Your task to perform on an android device: change the clock display to analog Image 0: 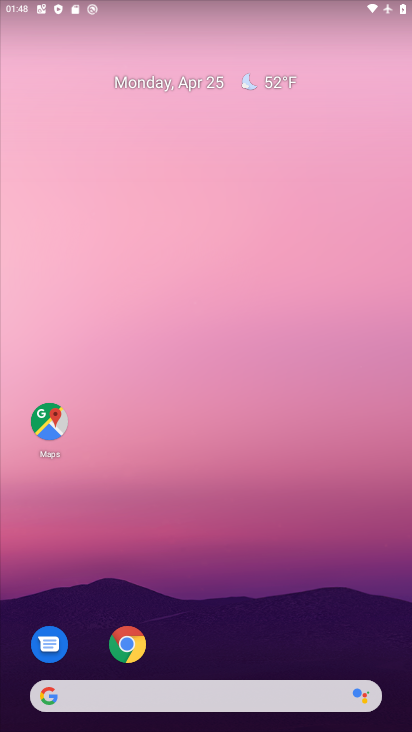
Step 0: click (123, 654)
Your task to perform on an android device: change the clock display to analog Image 1: 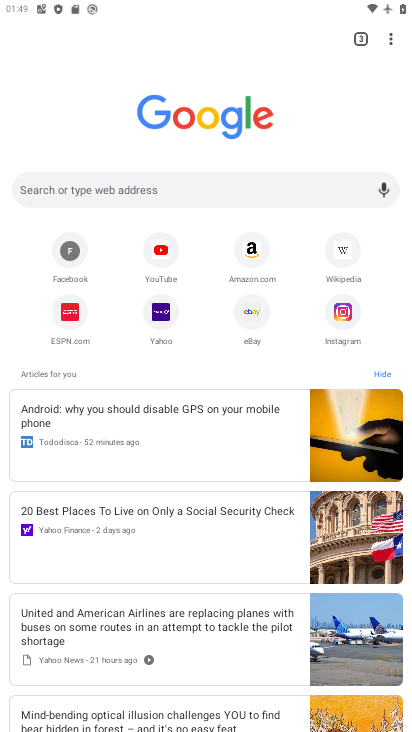
Step 1: click (390, 50)
Your task to perform on an android device: change the clock display to analog Image 2: 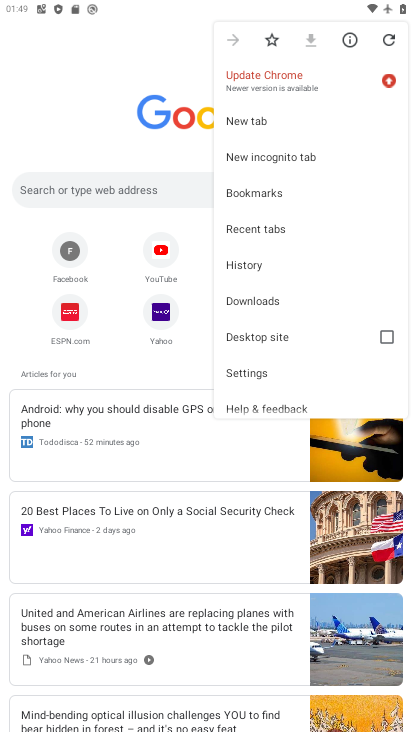
Step 2: press home button
Your task to perform on an android device: change the clock display to analog Image 3: 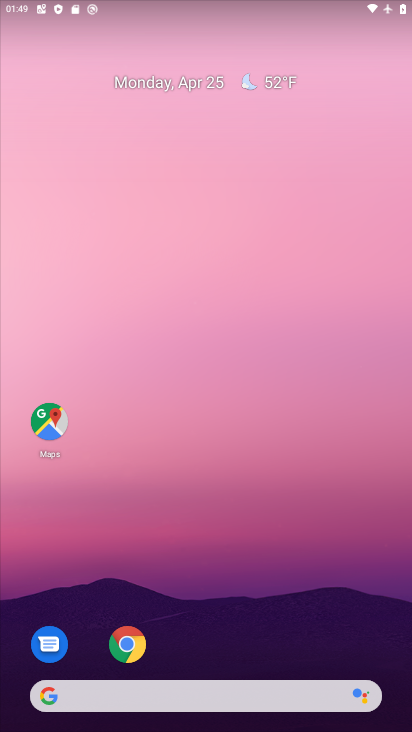
Step 3: drag from (208, 605) to (217, 151)
Your task to perform on an android device: change the clock display to analog Image 4: 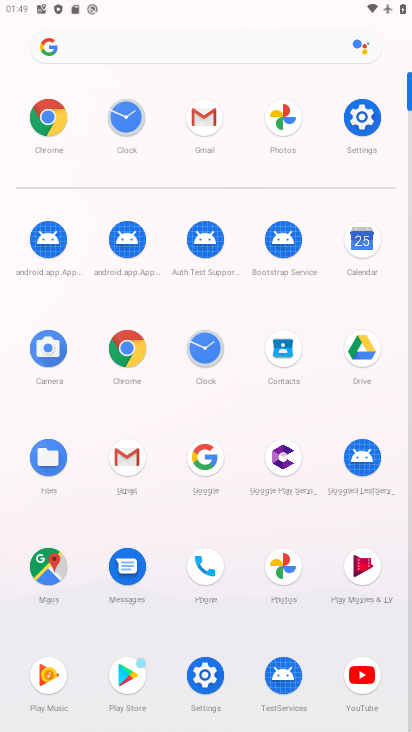
Step 4: click (355, 143)
Your task to perform on an android device: change the clock display to analog Image 5: 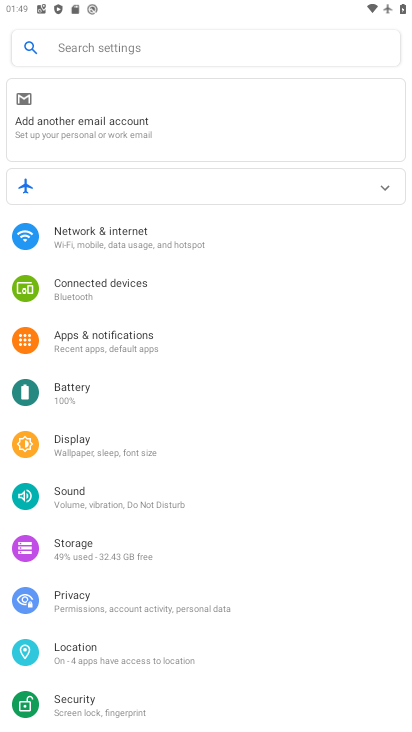
Step 5: press home button
Your task to perform on an android device: change the clock display to analog Image 6: 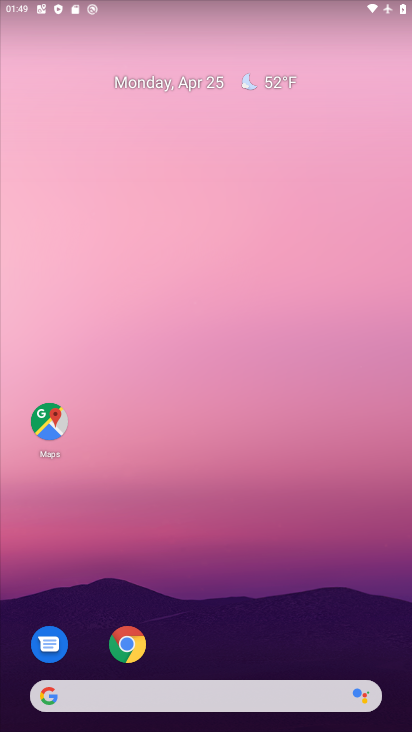
Step 6: drag from (228, 609) to (233, 28)
Your task to perform on an android device: change the clock display to analog Image 7: 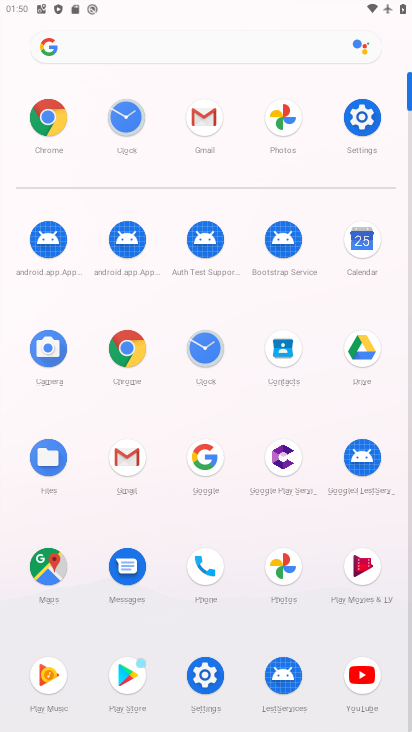
Step 7: click (192, 367)
Your task to perform on an android device: change the clock display to analog Image 8: 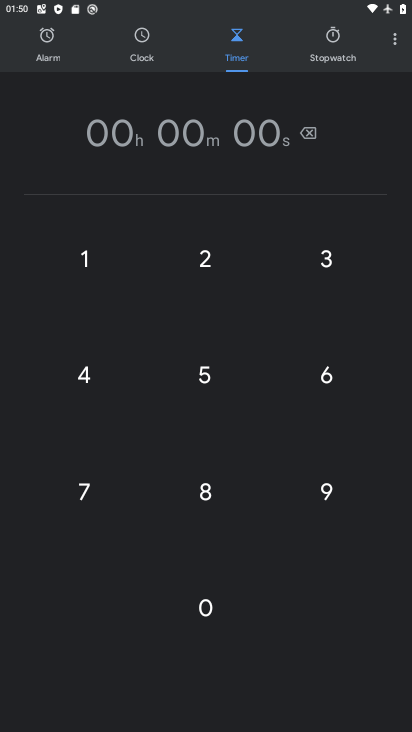
Step 8: click (394, 31)
Your task to perform on an android device: change the clock display to analog Image 9: 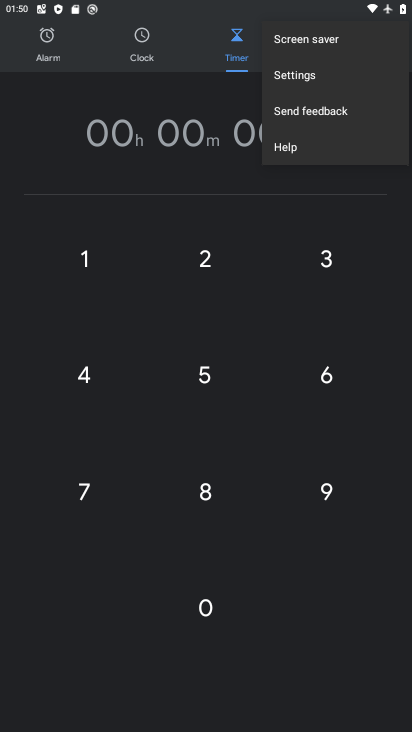
Step 9: click (310, 86)
Your task to perform on an android device: change the clock display to analog Image 10: 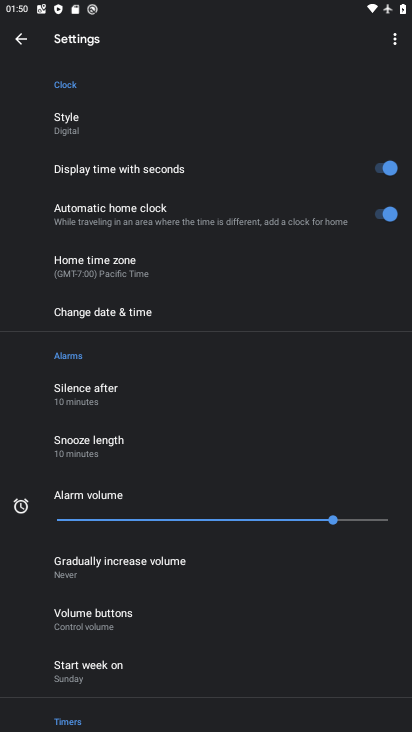
Step 10: drag from (118, 603) to (118, 485)
Your task to perform on an android device: change the clock display to analog Image 11: 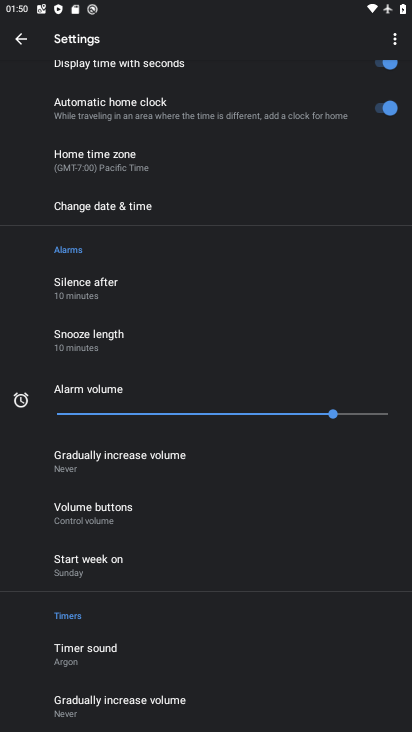
Step 11: drag from (192, 167) to (299, 699)
Your task to perform on an android device: change the clock display to analog Image 12: 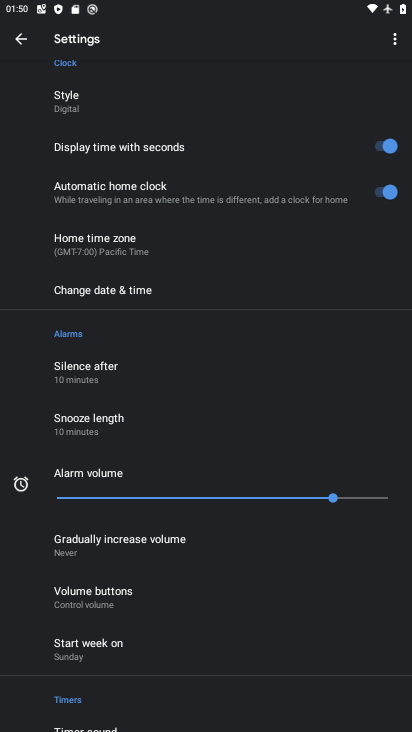
Step 12: click (65, 94)
Your task to perform on an android device: change the clock display to analog Image 13: 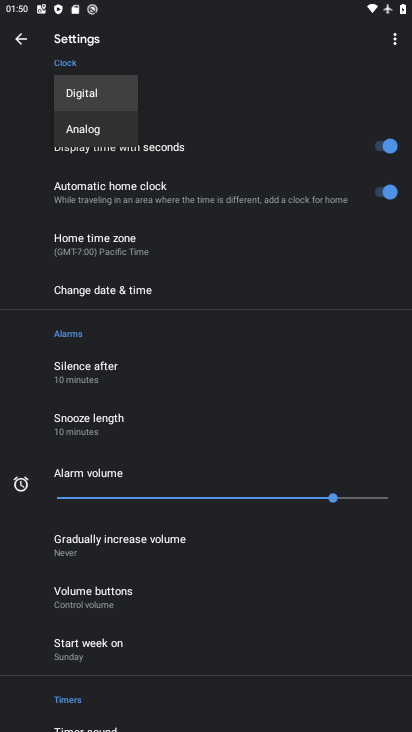
Step 13: click (121, 131)
Your task to perform on an android device: change the clock display to analog Image 14: 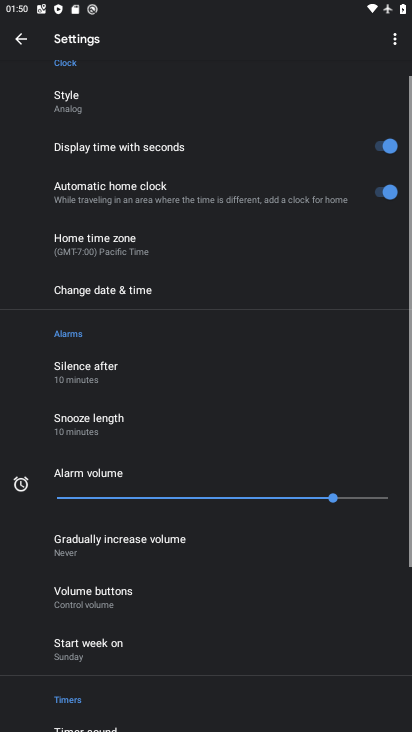
Step 14: task complete